Your task to perform on an android device: toggle location history Image 0: 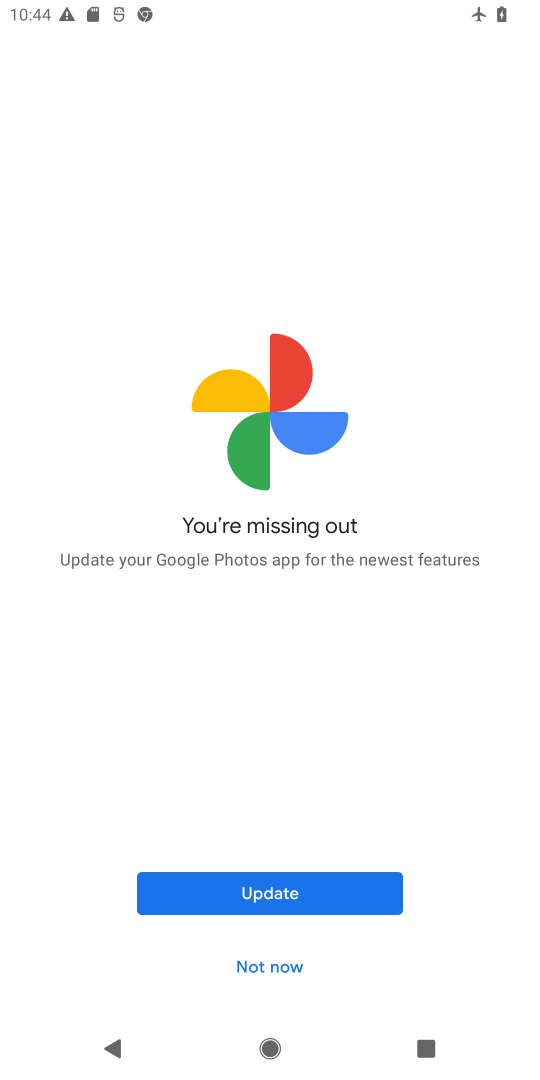
Step 0: press home button
Your task to perform on an android device: toggle location history Image 1: 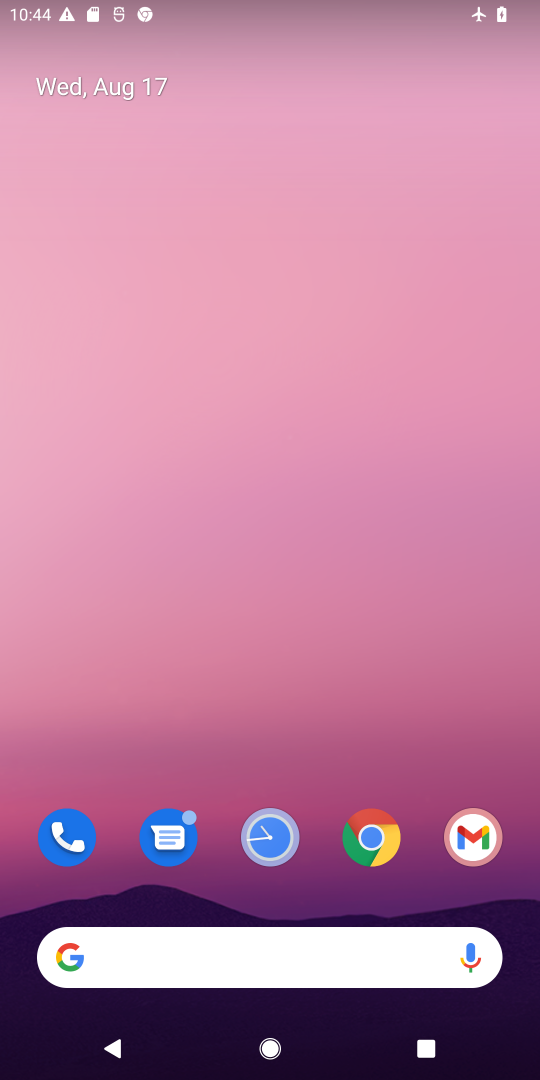
Step 1: drag from (234, 991) to (257, 338)
Your task to perform on an android device: toggle location history Image 2: 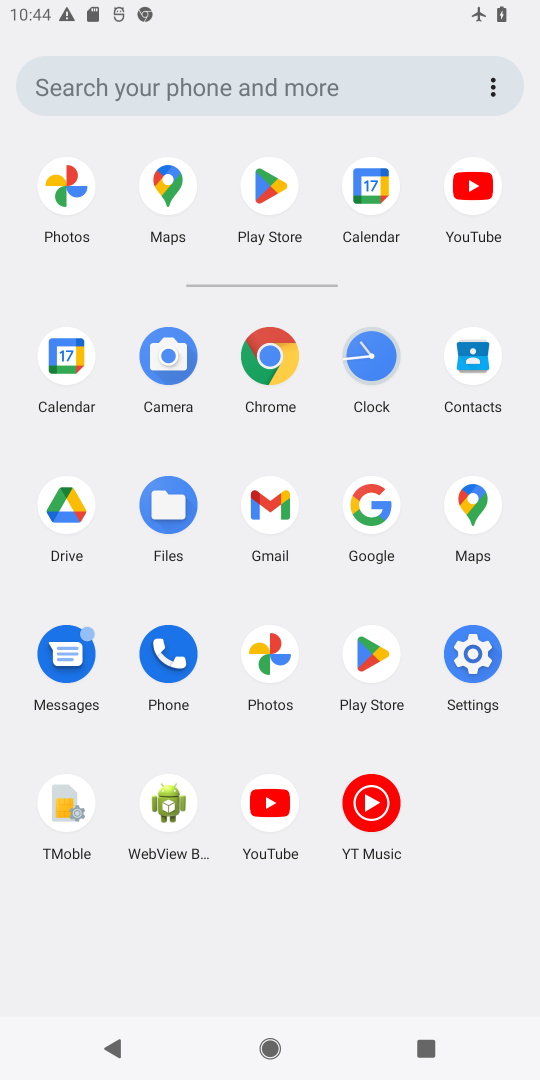
Step 2: click (472, 653)
Your task to perform on an android device: toggle location history Image 3: 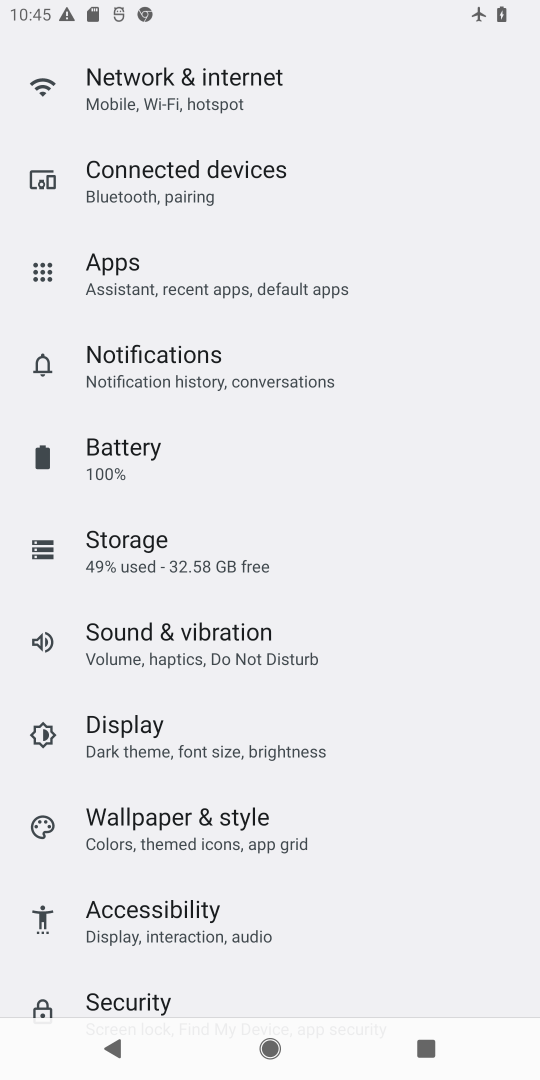
Step 3: drag from (201, 707) to (231, 563)
Your task to perform on an android device: toggle location history Image 4: 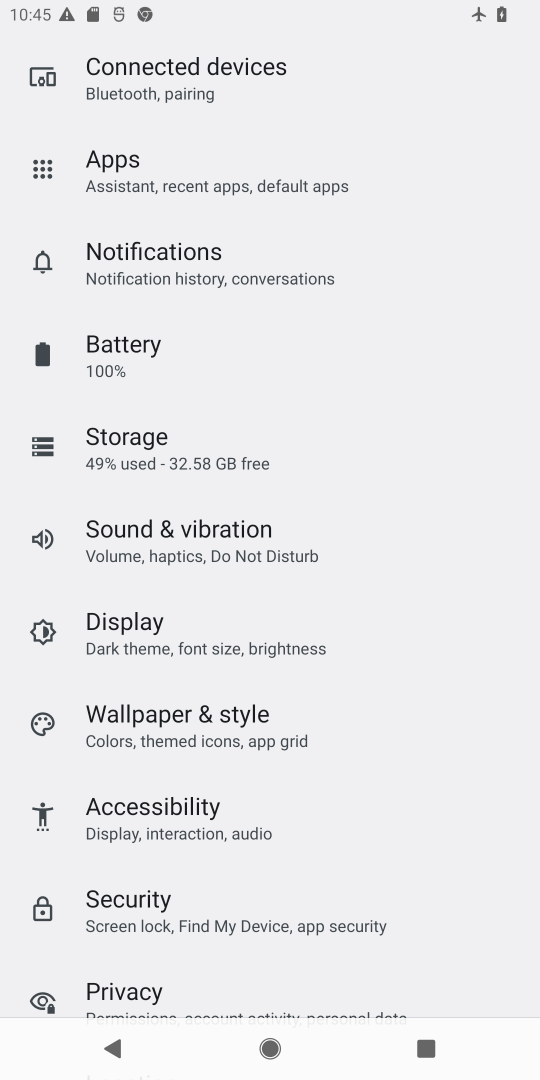
Step 4: drag from (165, 871) to (225, 756)
Your task to perform on an android device: toggle location history Image 5: 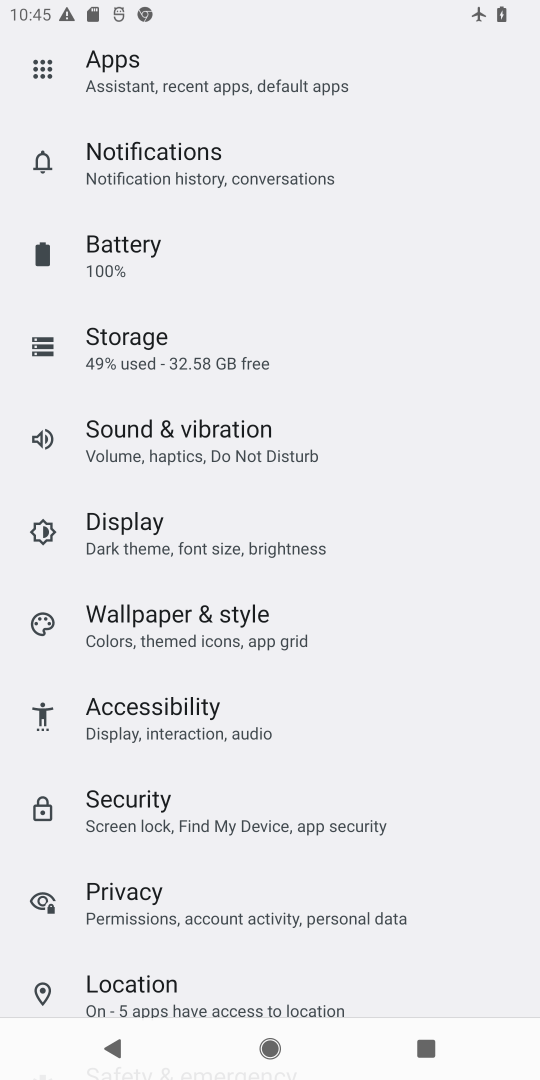
Step 5: drag from (155, 871) to (229, 714)
Your task to perform on an android device: toggle location history Image 6: 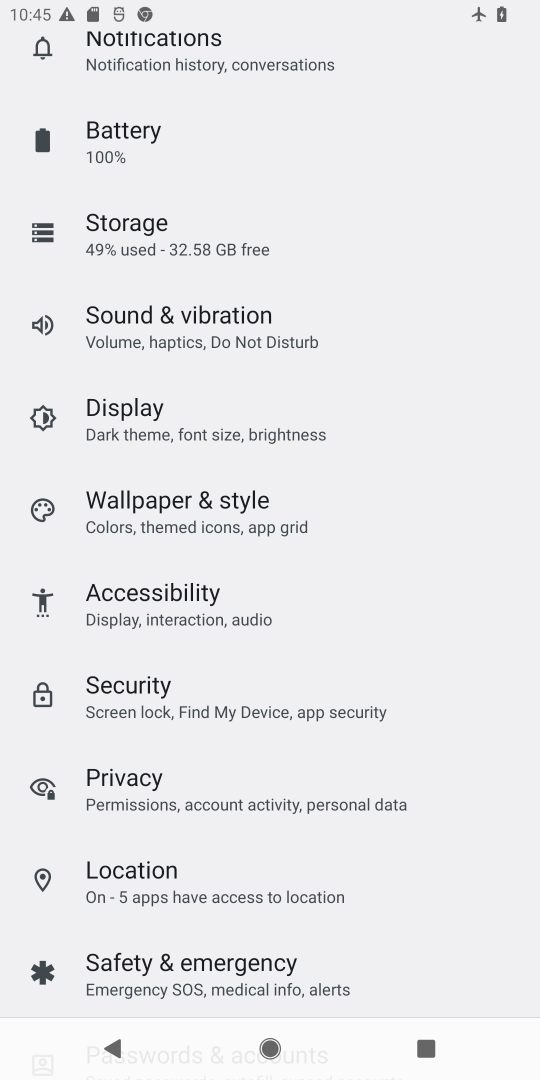
Step 6: click (160, 869)
Your task to perform on an android device: toggle location history Image 7: 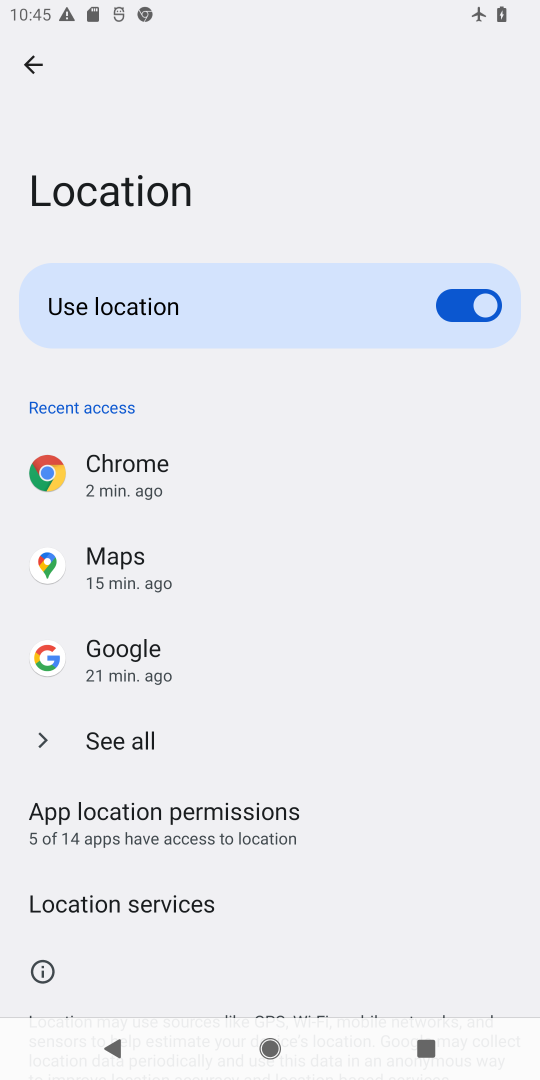
Step 7: drag from (147, 855) to (219, 690)
Your task to perform on an android device: toggle location history Image 8: 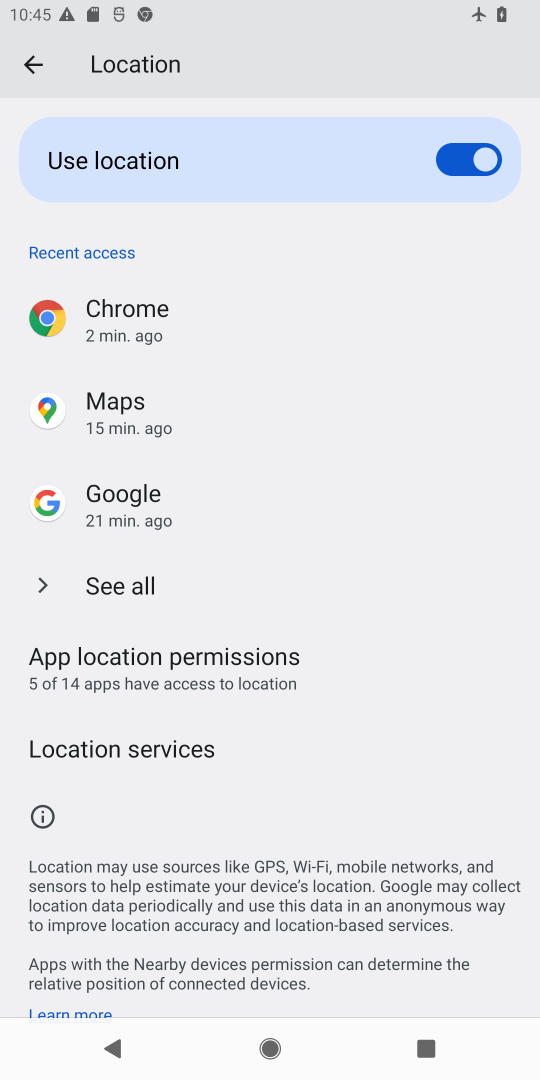
Step 8: click (167, 746)
Your task to perform on an android device: toggle location history Image 9: 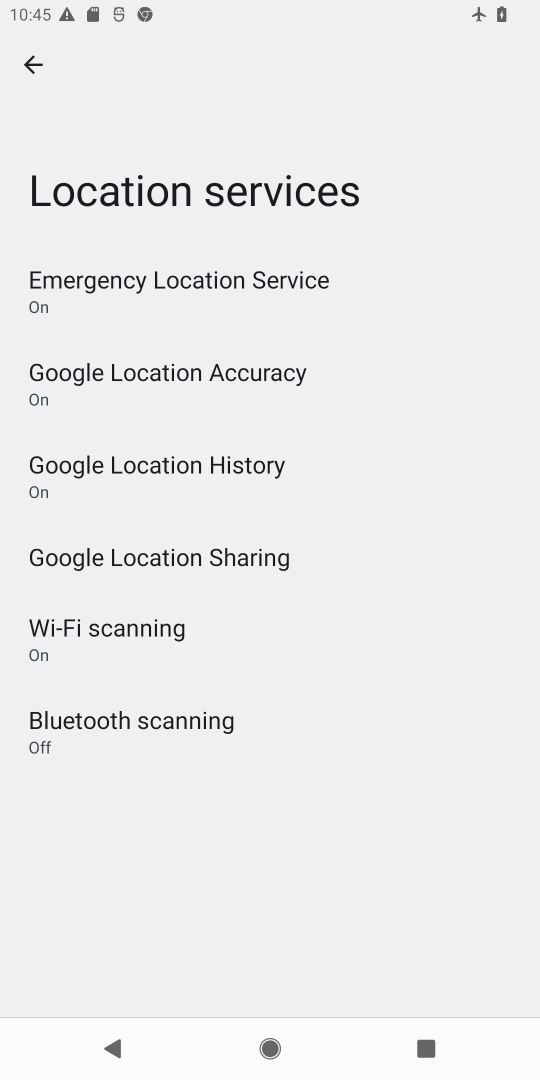
Step 9: click (190, 480)
Your task to perform on an android device: toggle location history Image 10: 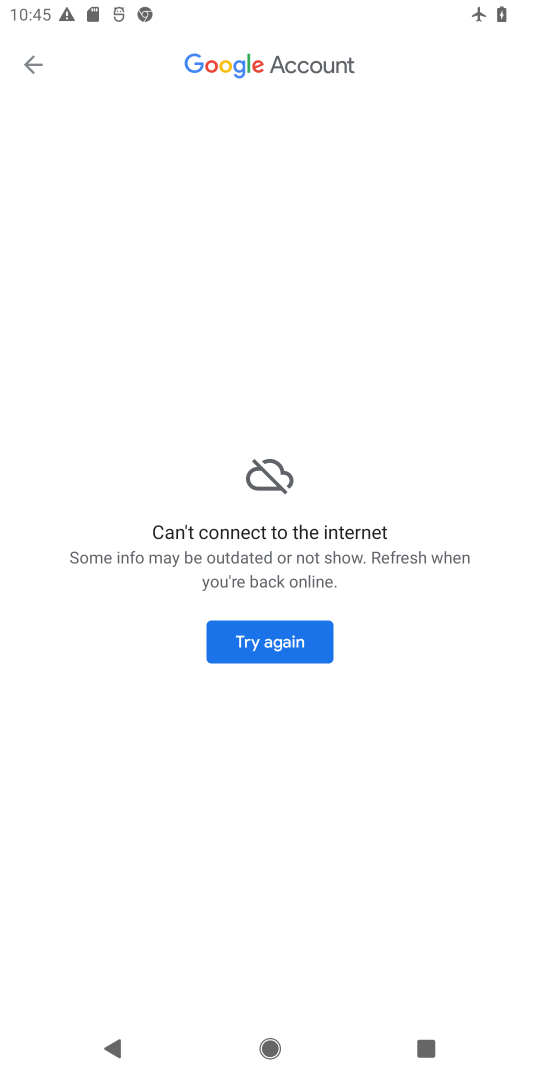
Step 10: click (266, 645)
Your task to perform on an android device: toggle location history Image 11: 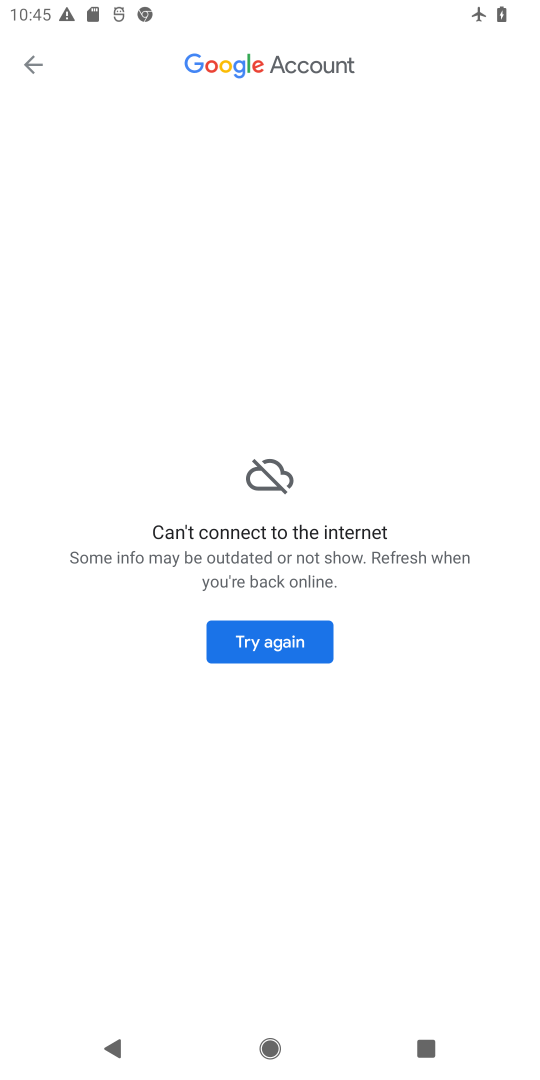
Step 11: task complete